Your task to perform on an android device: set default search engine in the chrome app Image 0: 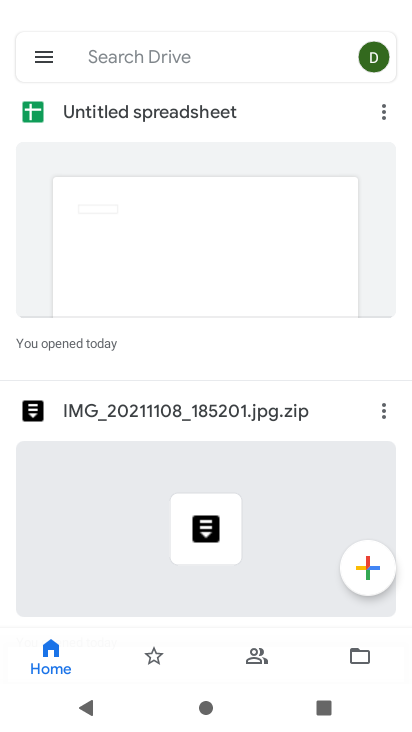
Step 0: press home button
Your task to perform on an android device: set default search engine in the chrome app Image 1: 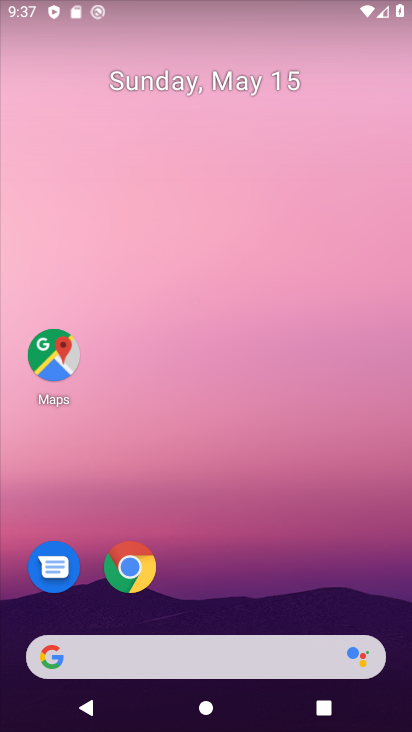
Step 1: click (131, 567)
Your task to perform on an android device: set default search engine in the chrome app Image 2: 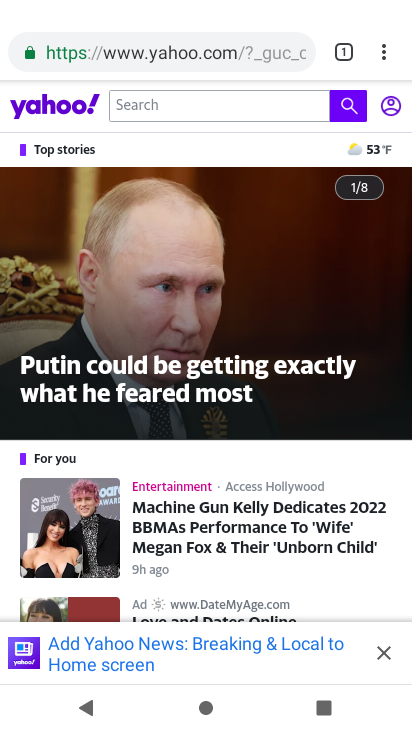
Step 2: click (372, 57)
Your task to perform on an android device: set default search engine in the chrome app Image 3: 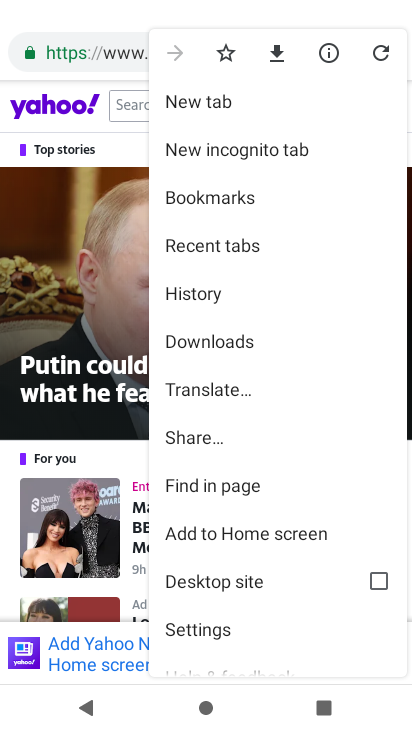
Step 3: click (221, 624)
Your task to perform on an android device: set default search engine in the chrome app Image 4: 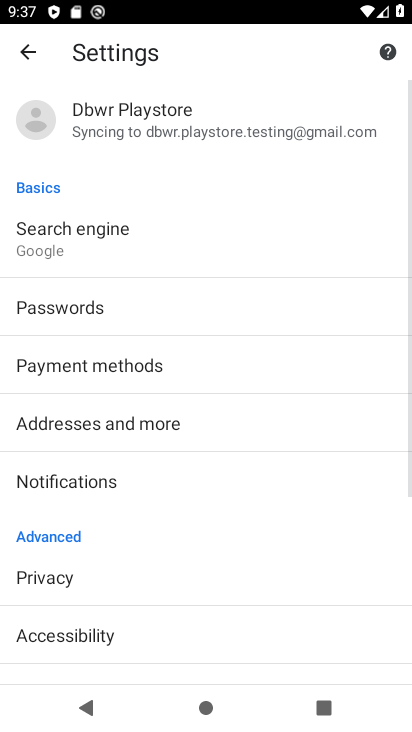
Step 4: click (78, 249)
Your task to perform on an android device: set default search engine in the chrome app Image 5: 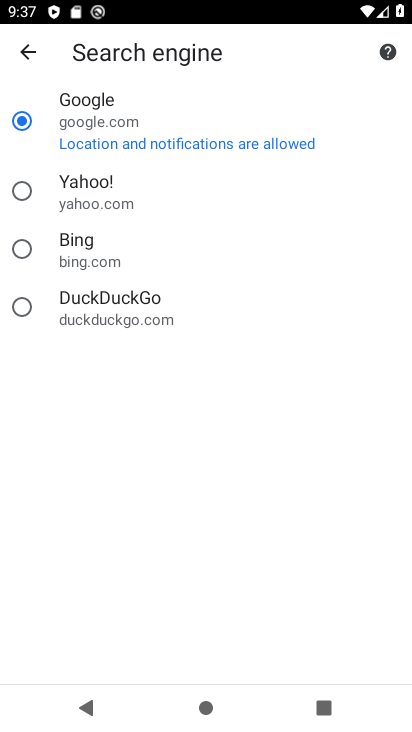
Step 5: click (22, 196)
Your task to perform on an android device: set default search engine in the chrome app Image 6: 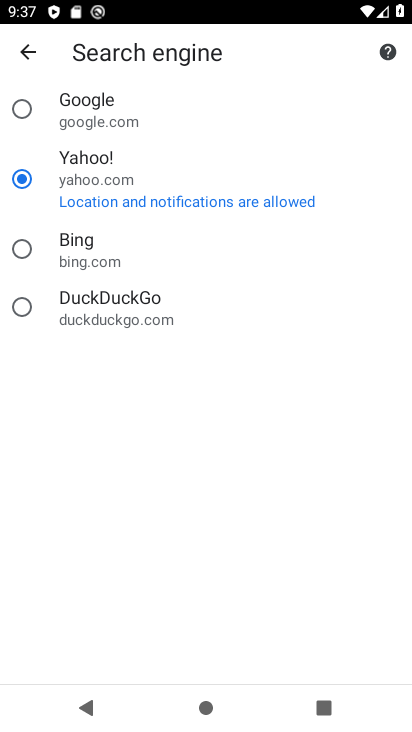
Step 6: task complete